Your task to perform on an android device: Open ESPN.com Image 0: 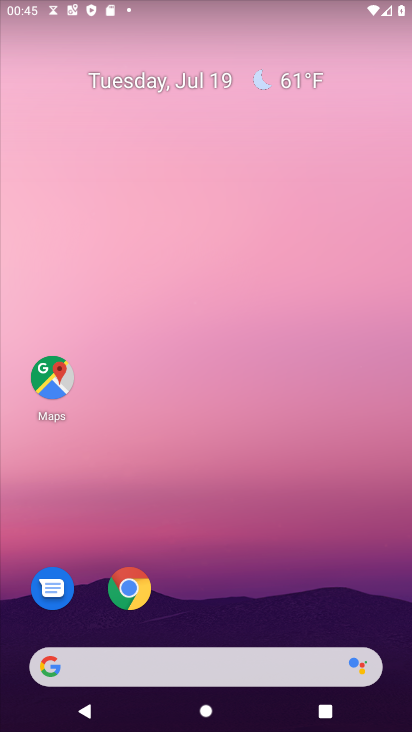
Step 0: click (132, 579)
Your task to perform on an android device: Open ESPN.com Image 1: 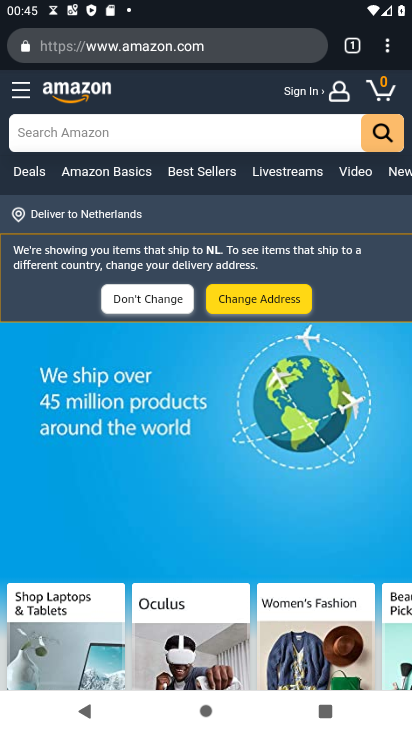
Step 1: click (345, 47)
Your task to perform on an android device: Open ESPN.com Image 2: 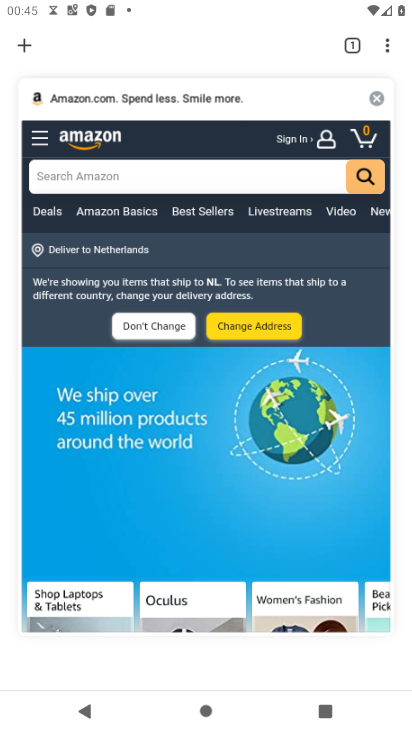
Step 2: click (26, 42)
Your task to perform on an android device: Open ESPN.com Image 3: 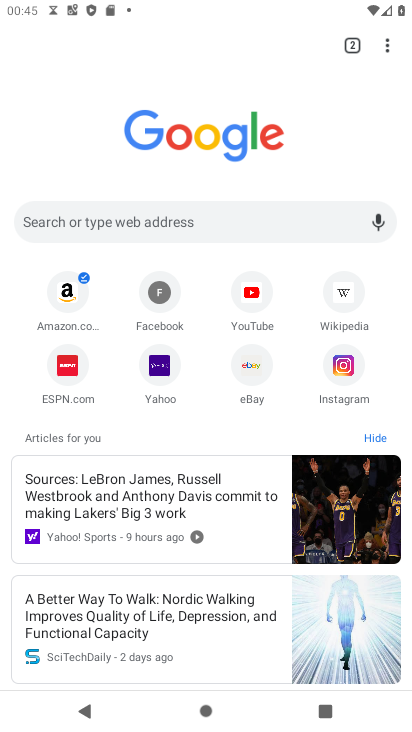
Step 3: click (63, 377)
Your task to perform on an android device: Open ESPN.com Image 4: 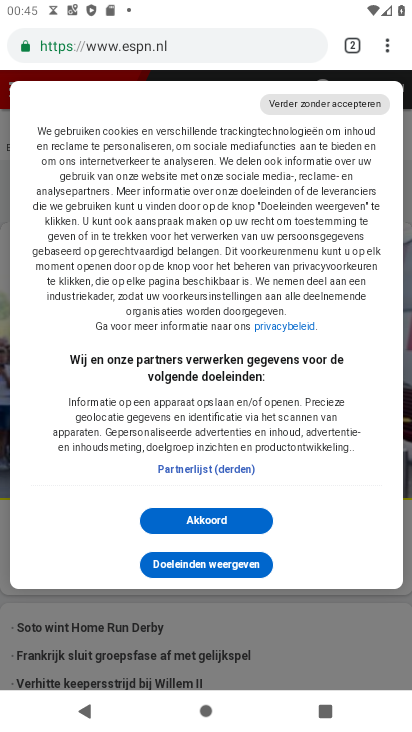
Step 4: click (189, 517)
Your task to perform on an android device: Open ESPN.com Image 5: 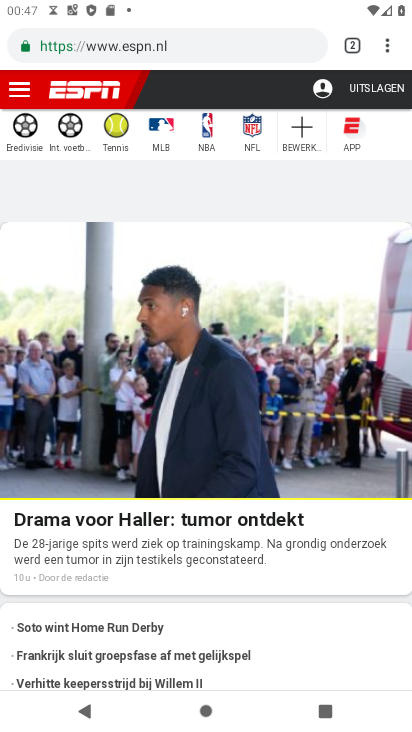
Step 5: task complete